Your task to perform on an android device: Look up the best gaming chair on Best Buy. Image 0: 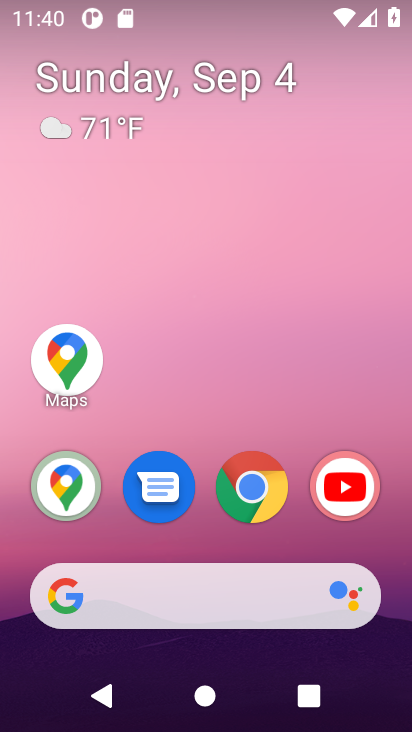
Step 0: click (63, 505)
Your task to perform on an android device: Look up the best gaming chair on Best Buy. Image 1: 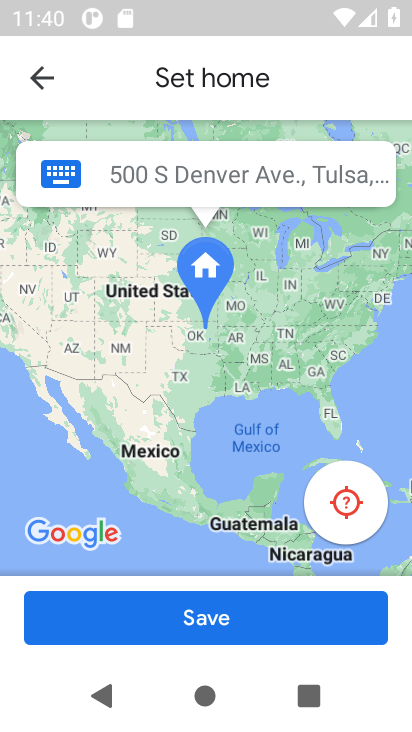
Step 1: task complete